Your task to perform on an android device: Search for vegetarian restaurants on Maps Image 0: 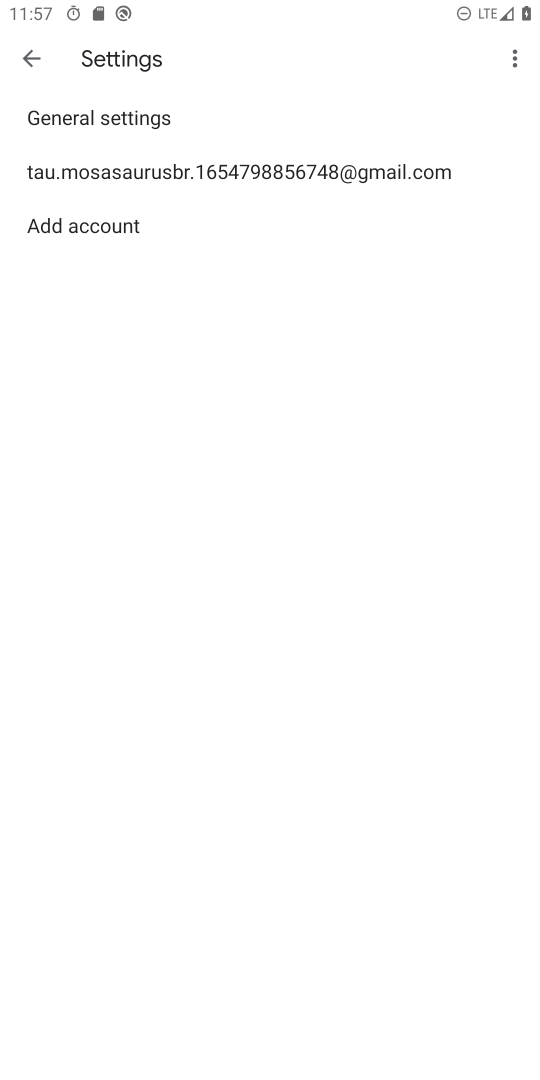
Step 0: press home button
Your task to perform on an android device: Search for vegetarian restaurants on Maps Image 1: 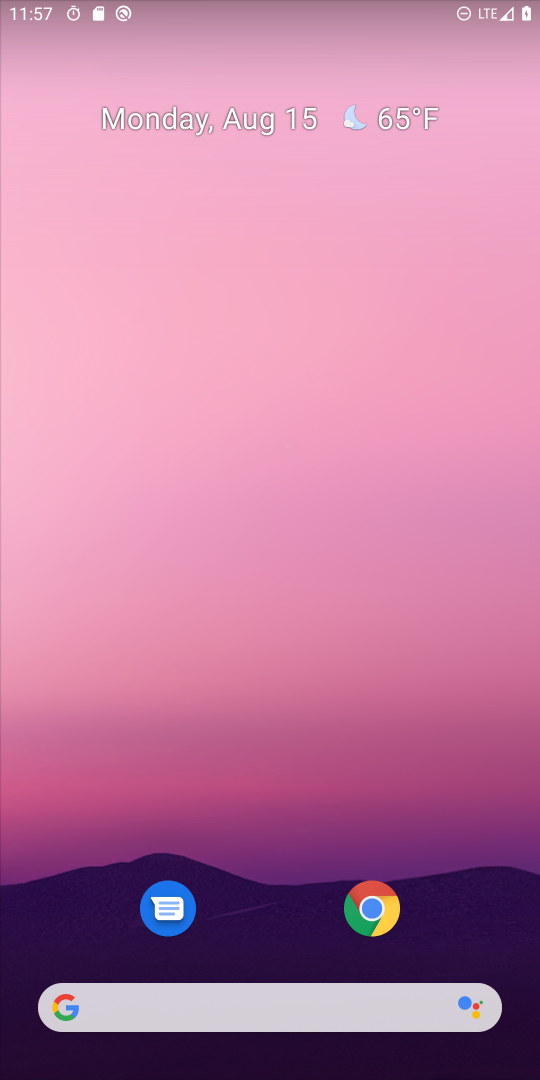
Step 1: drag from (202, 901) to (331, 39)
Your task to perform on an android device: Search for vegetarian restaurants on Maps Image 2: 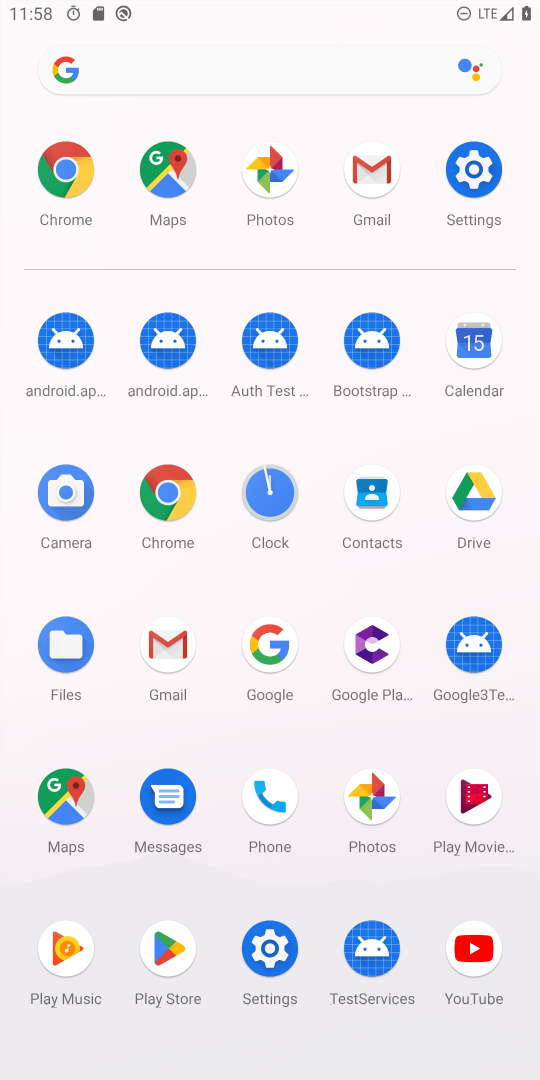
Step 2: click (150, 173)
Your task to perform on an android device: Search for vegetarian restaurants on Maps Image 3: 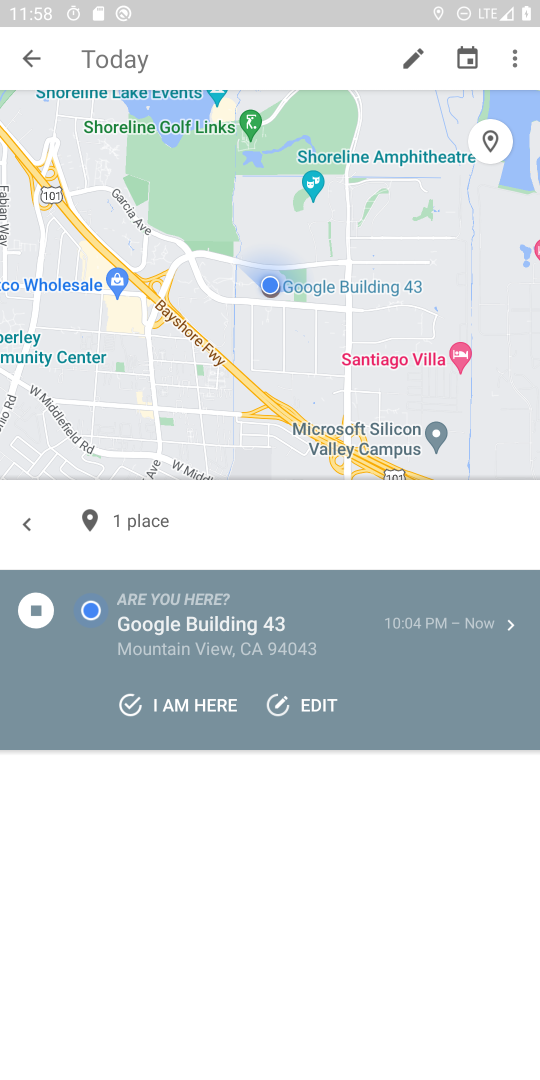
Step 3: click (31, 58)
Your task to perform on an android device: Search for vegetarian restaurants on Maps Image 4: 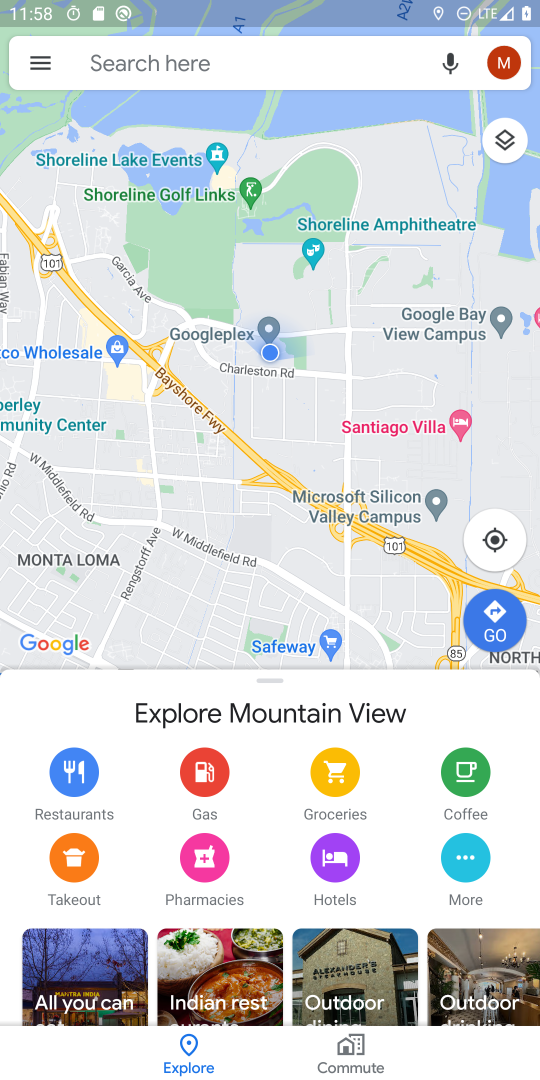
Step 4: click (145, 76)
Your task to perform on an android device: Search for vegetarian restaurants on Maps Image 5: 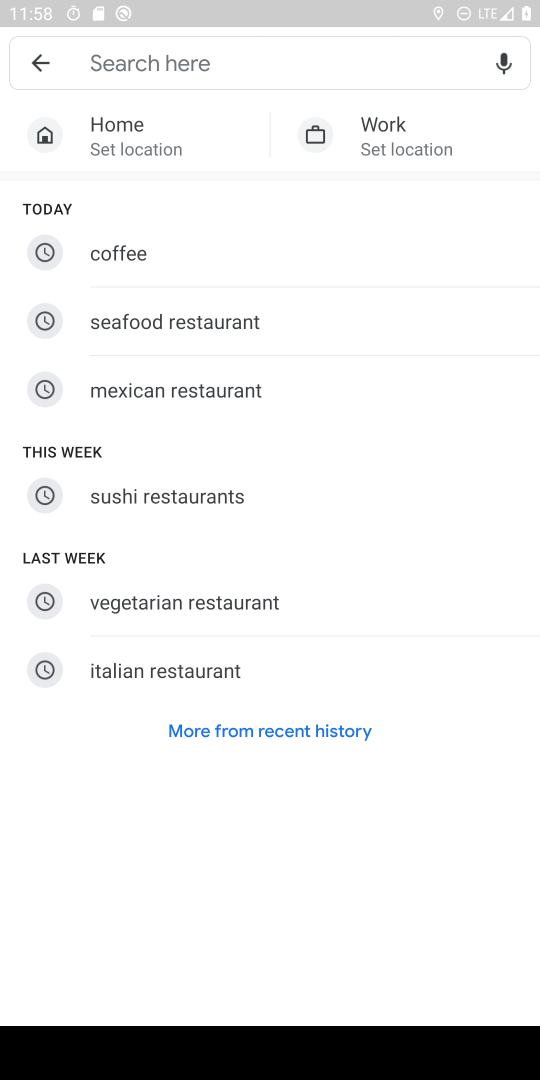
Step 5: click (376, 606)
Your task to perform on an android device: Search for vegetarian restaurants on Maps Image 6: 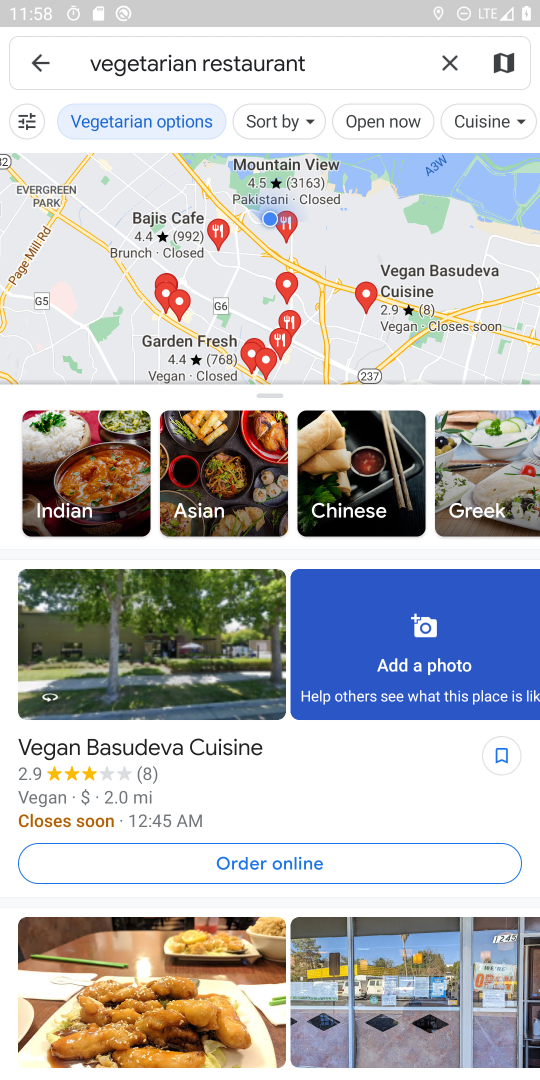
Step 6: task complete